Your task to perform on an android device: open chrome and create a bookmark for the current page Image 0: 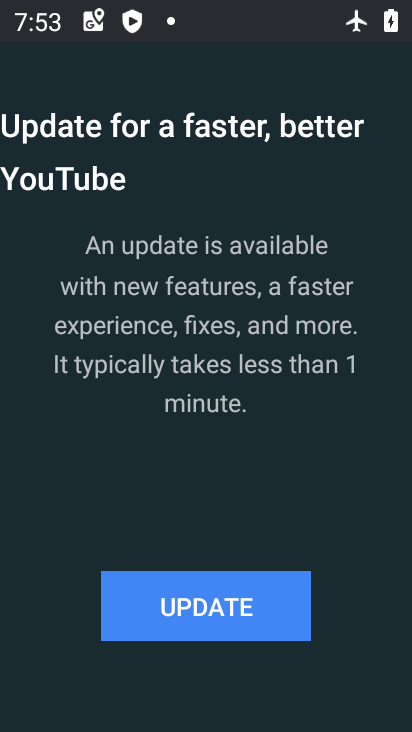
Step 0: press home button
Your task to perform on an android device: open chrome and create a bookmark for the current page Image 1: 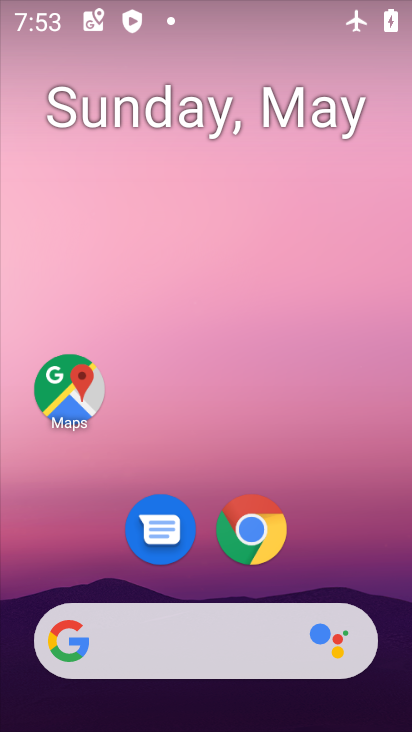
Step 1: click (261, 533)
Your task to perform on an android device: open chrome and create a bookmark for the current page Image 2: 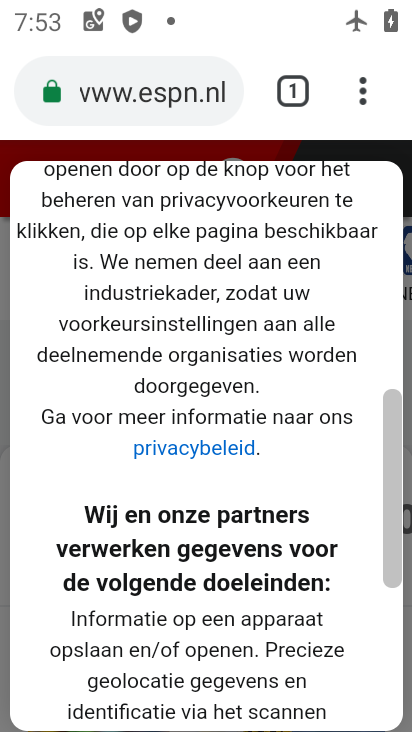
Step 2: click (367, 93)
Your task to perform on an android device: open chrome and create a bookmark for the current page Image 3: 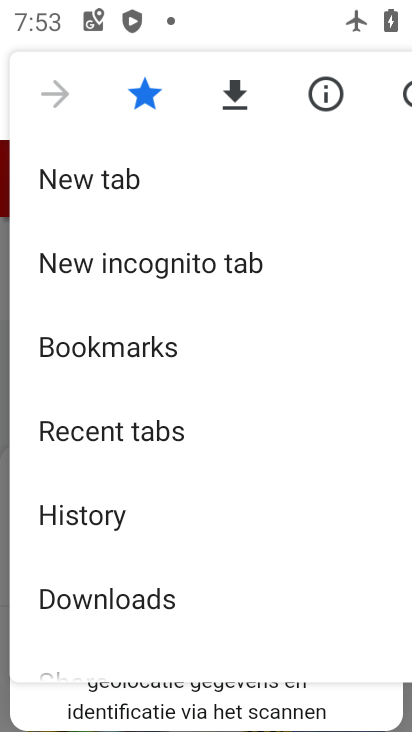
Step 3: task complete